Your task to perform on an android device: Is it going to rain tomorrow? Image 0: 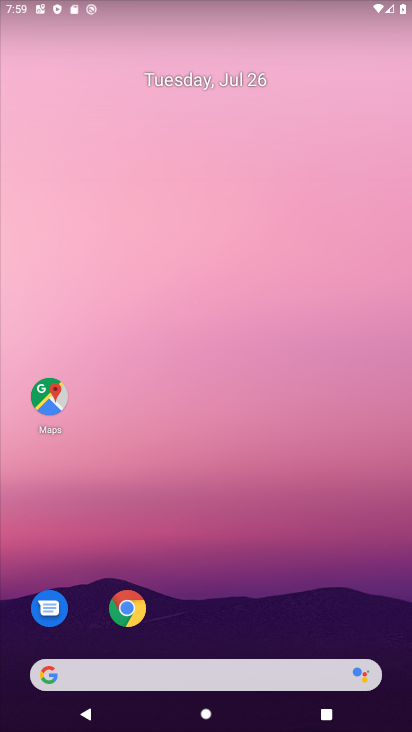
Step 0: click (64, 665)
Your task to perform on an android device: Is it going to rain tomorrow? Image 1: 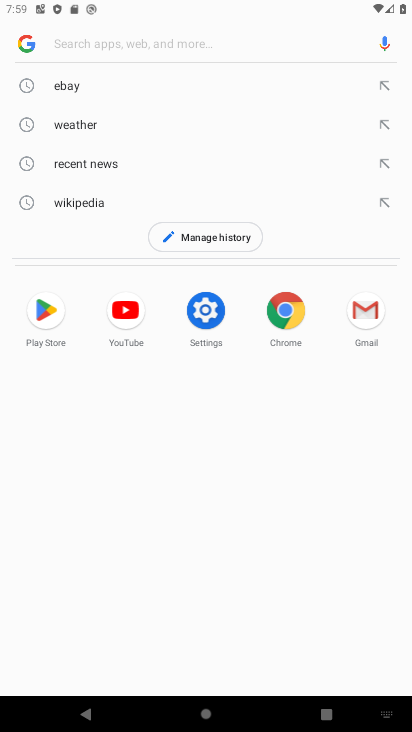
Step 1: type "Is it going to rain tomorrow?"
Your task to perform on an android device: Is it going to rain tomorrow? Image 2: 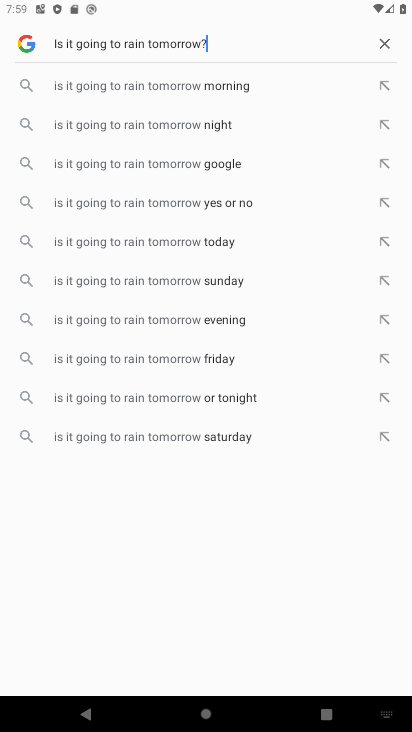
Step 2: type ""
Your task to perform on an android device: Is it going to rain tomorrow? Image 3: 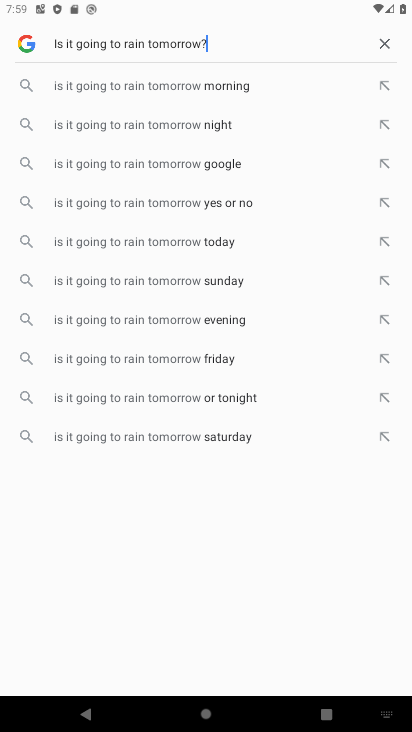
Step 3: type ""
Your task to perform on an android device: Is it going to rain tomorrow? Image 4: 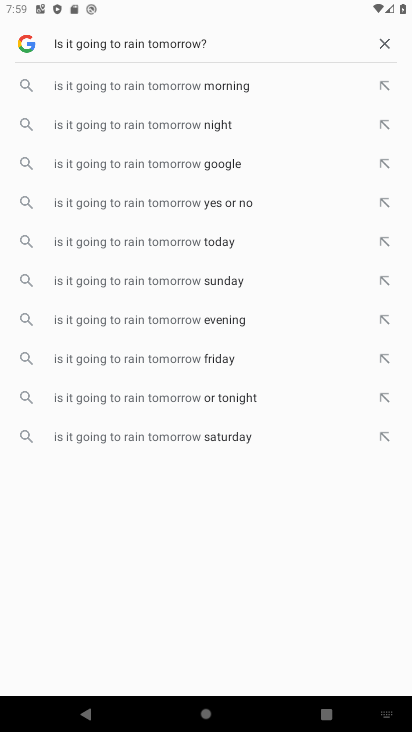
Step 4: type ""
Your task to perform on an android device: Is it going to rain tomorrow? Image 5: 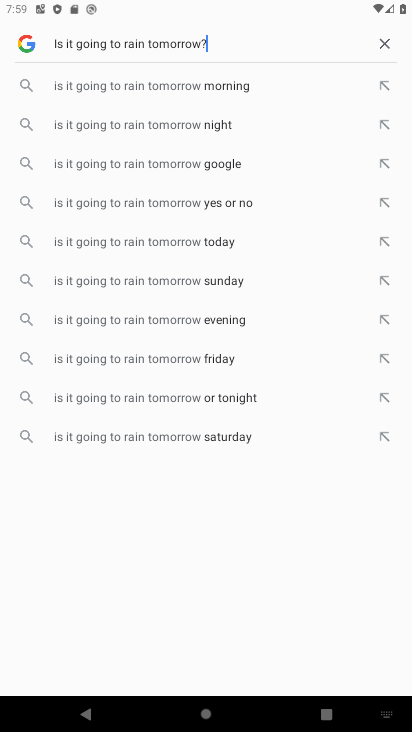
Step 5: type ""
Your task to perform on an android device: Is it going to rain tomorrow? Image 6: 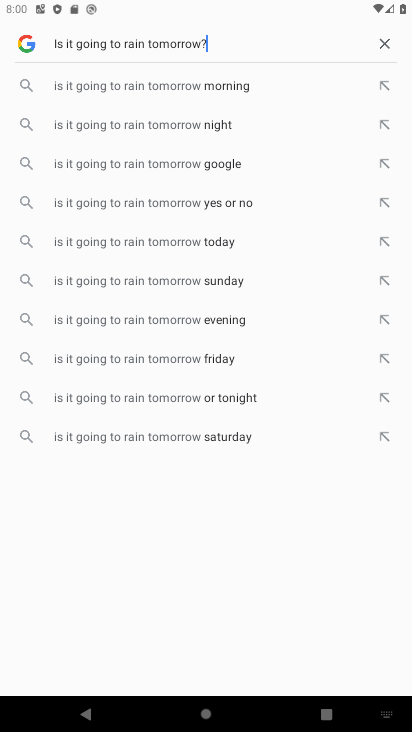
Step 6: type ""
Your task to perform on an android device: Is it going to rain tomorrow? Image 7: 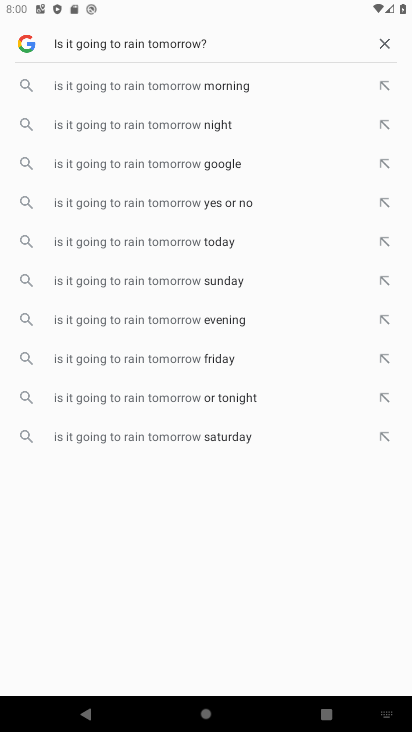
Step 7: task complete